Your task to perform on an android device: Open accessibility settings Image 0: 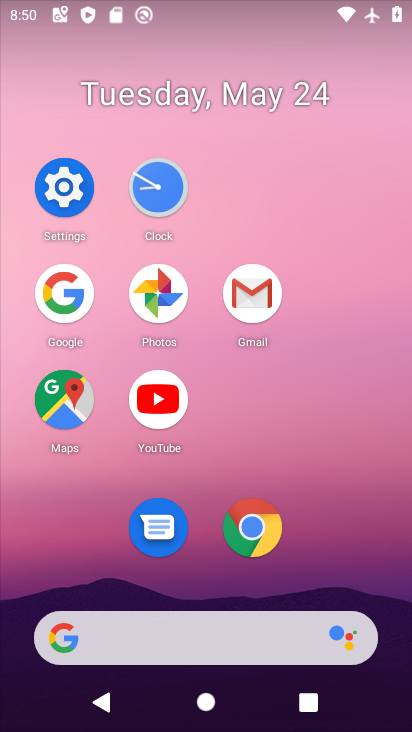
Step 0: click (48, 181)
Your task to perform on an android device: Open accessibility settings Image 1: 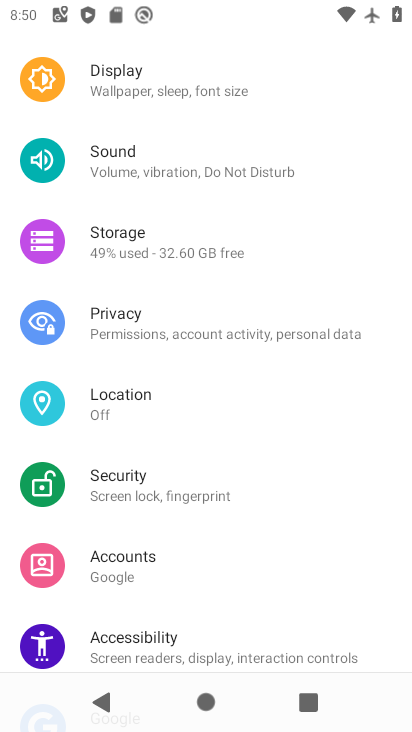
Step 1: click (238, 631)
Your task to perform on an android device: Open accessibility settings Image 2: 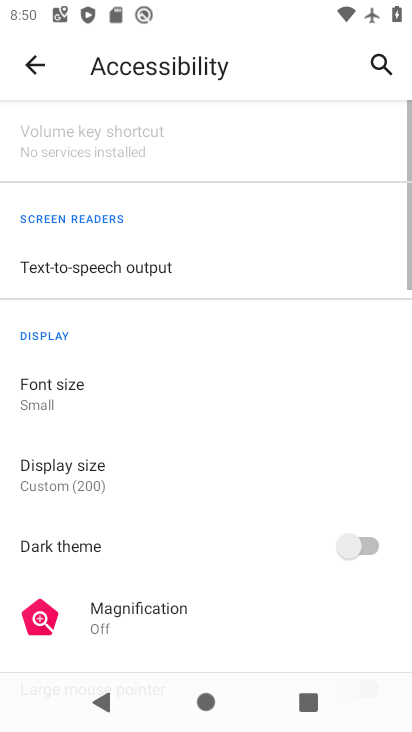
Step 2: task complete